Your task to perform on an android device: Go to Google maps Image 0: 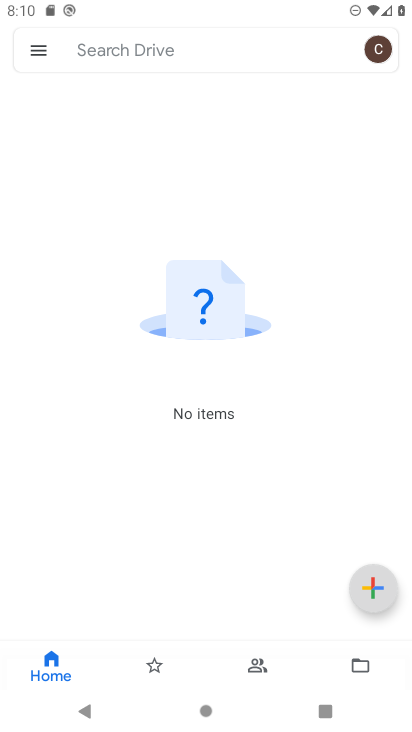
Step 0: press home button
Your task to perform on an android device: Go to Google maps Image 1: 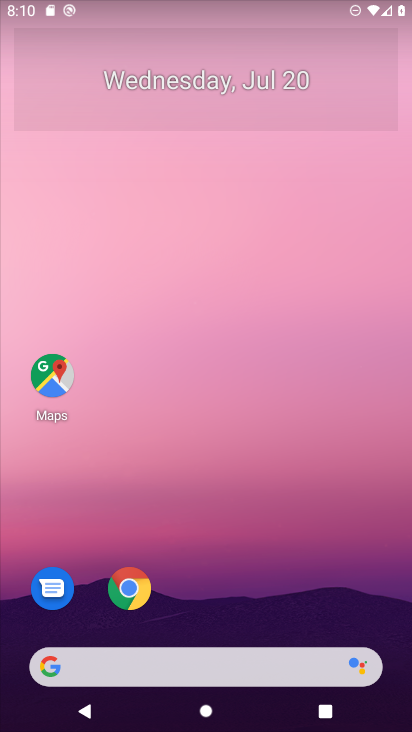
Step 1: click (54, 372)
Your task to perform on an android device: Go to Google maps Image 2: 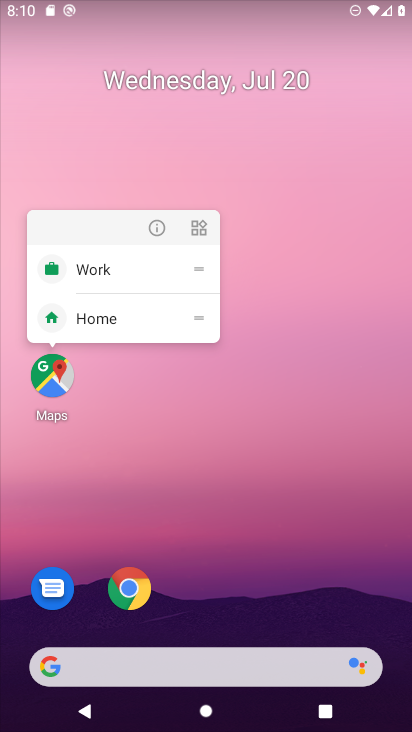
Step 2: click (39, 387)
Your task to perform on an android device: Go to Google maps Image 3: 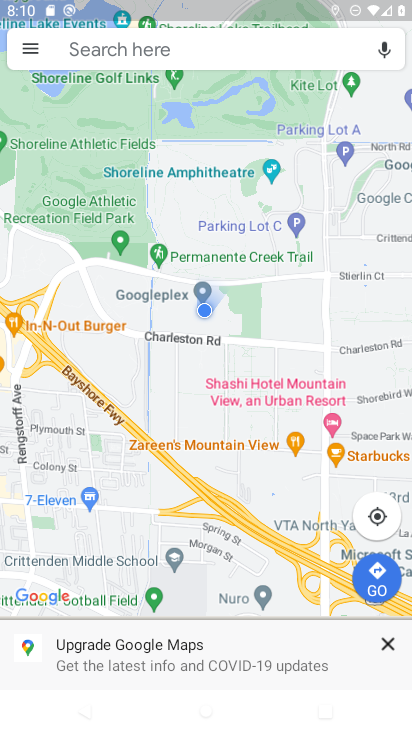
Step 3: task complete